Your task to perform on an android device: Go to accessibility settings Image 0: 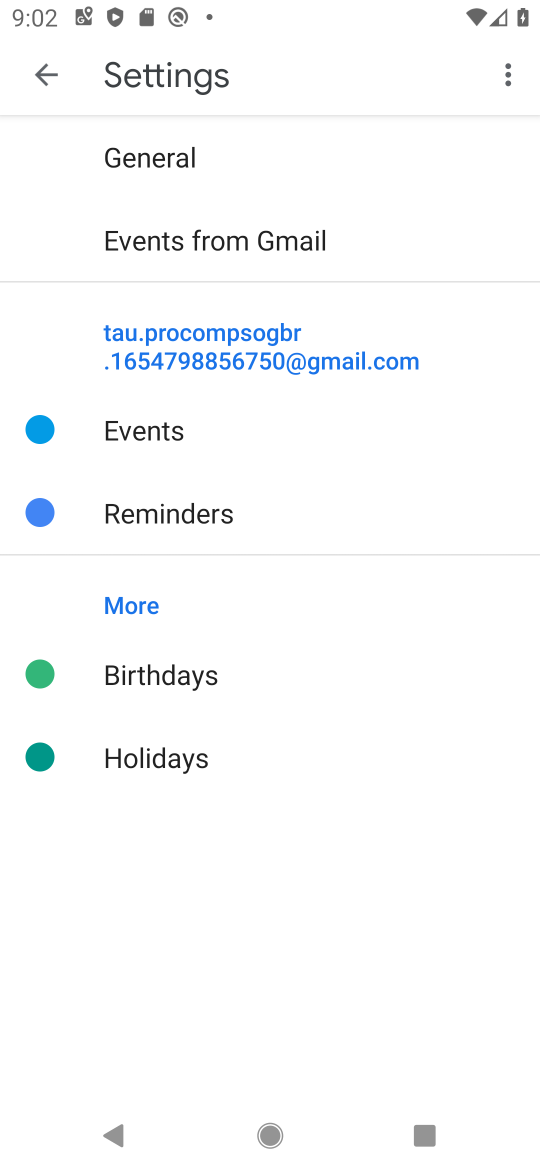
Step 0: press home button
Your task to perform on an android device: Go to accessibility settings Image 1: 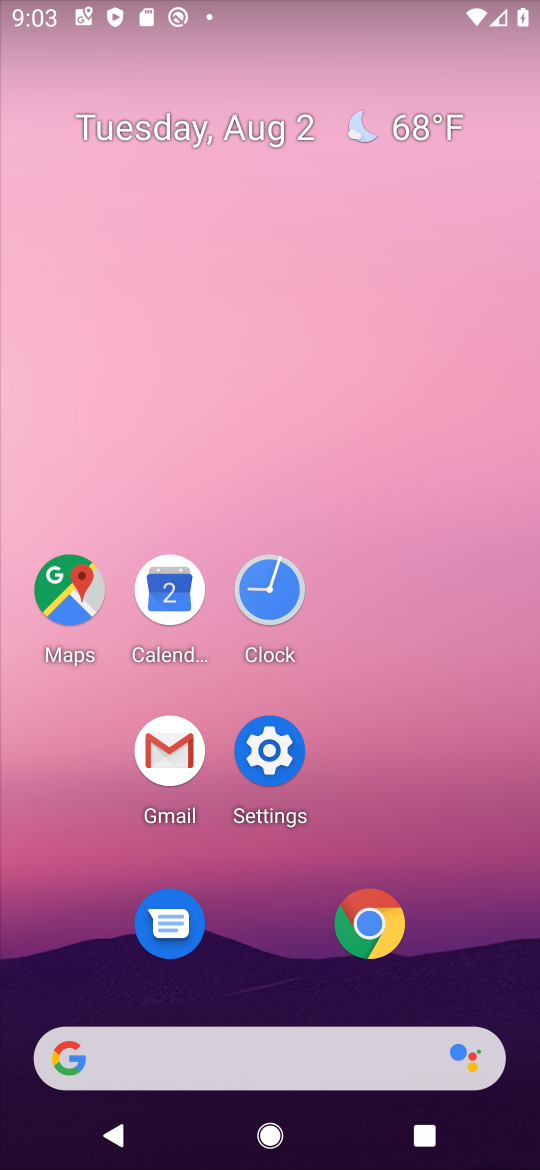
Step 1: click (276, 761)
Your task to perform on an android device: Go to accessibility settings Image 2: 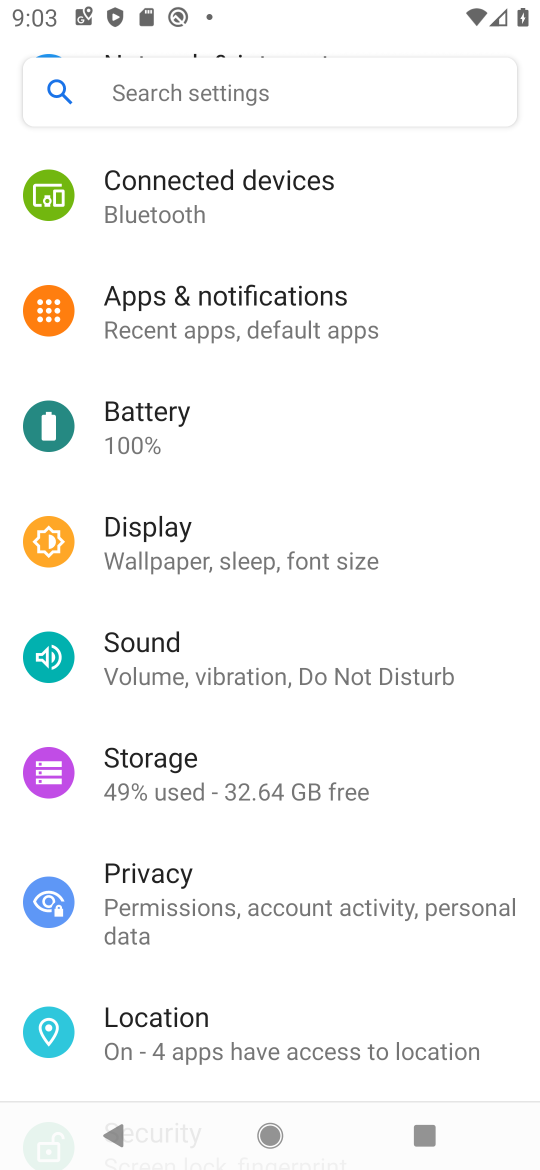
Step 2: drag from (239, 995) to (278, 355)
Your task to perform on an android device: Go to accessibility settings Image 3: 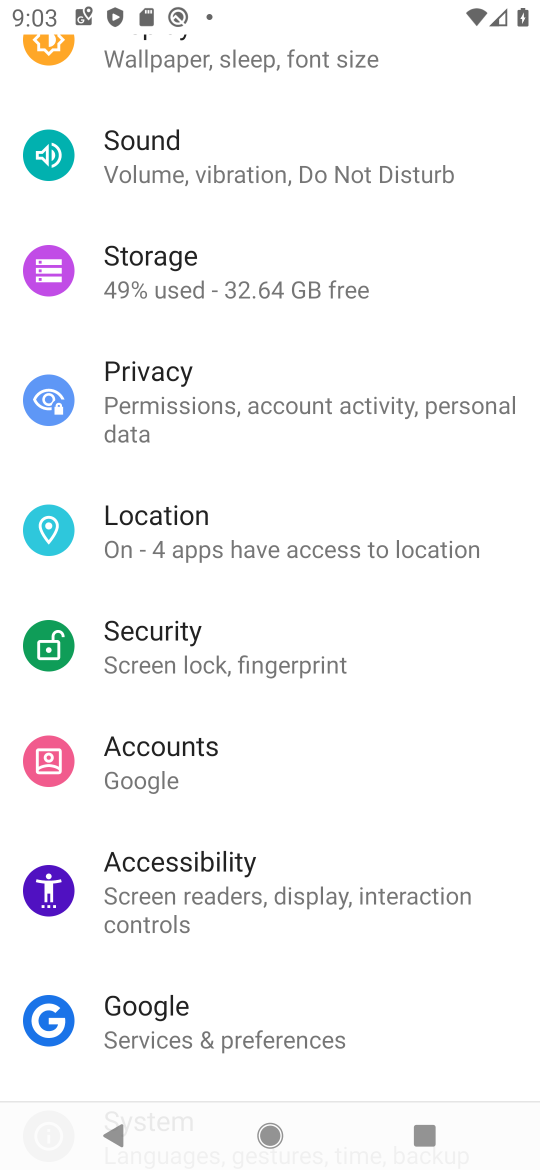
Step 3: click (198, 883)
Your task to perform on an android device: Go to accessibility settings Image 4: 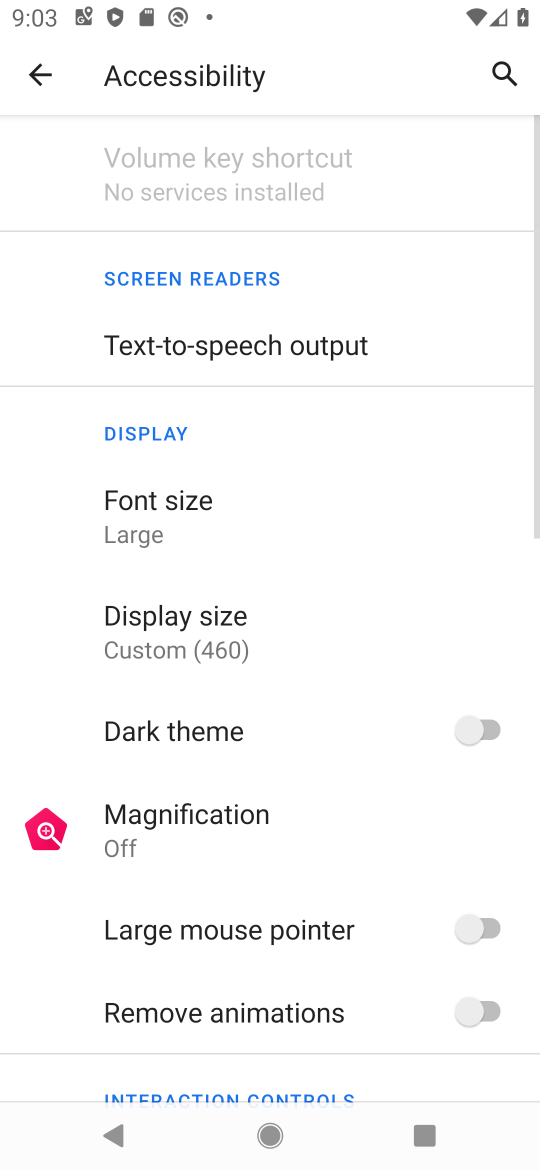
Step 4: task complete